Your task to perform on an android device: Open wifi settings Image 0: 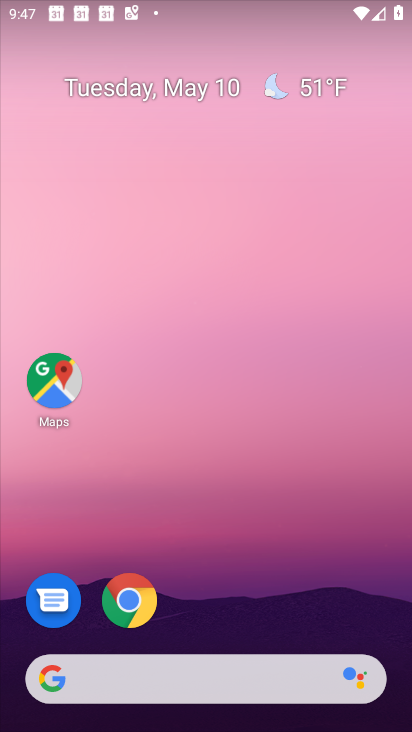
Step 0: drag from (264, 633) to (148, 4)
Your task to perform on an android device: Open wifi settings Image 1: 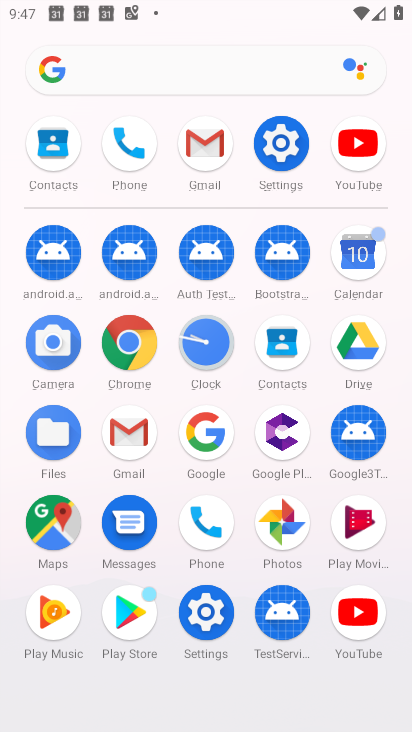
Step 1: click (266, 146)
Your task to perform on an android device: Open wifi settings Image 2: 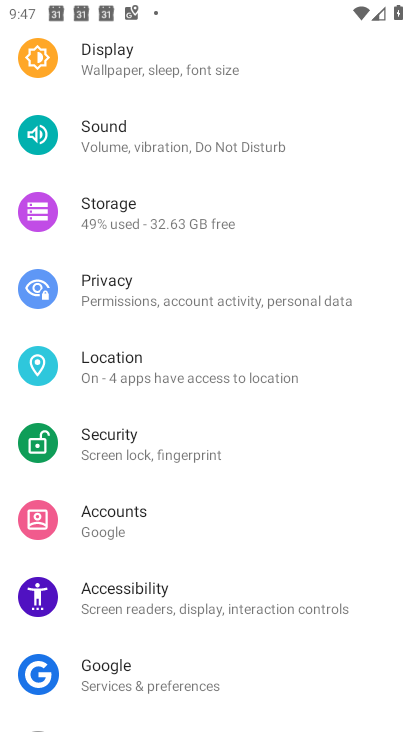
Step 2: drag from (206, 145) to (188, 593)
Your task to perform on an android device: Open wifi settings Image 3: 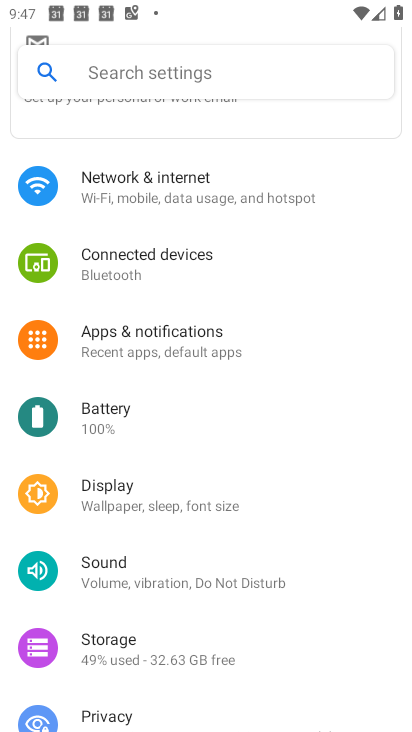
Step 3: click (186, 183)
Your task to perform on an android device: Open wifi settings Image 4: 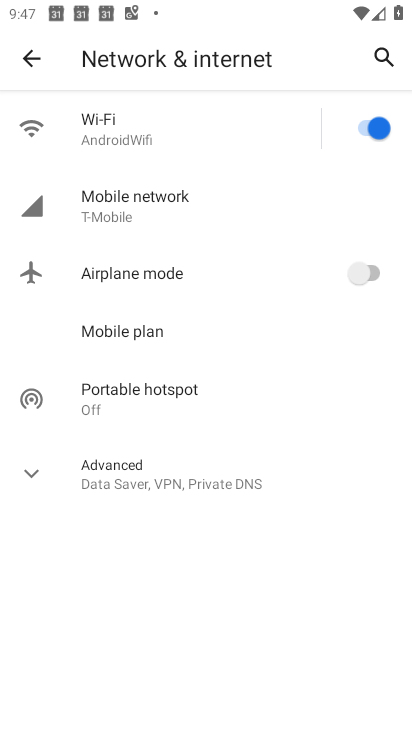
Step 4: click (112, 122)
Your task to perform on an android device: Open wifi settings Image 5: 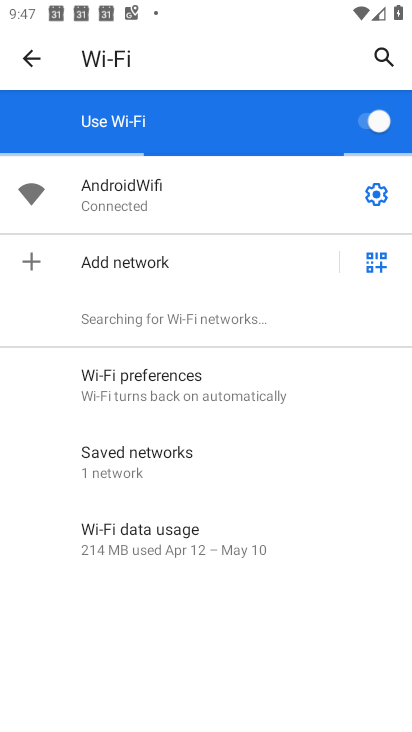
Step 5: task complete